Your task to perform on an android device: turn off sleep mode Image 0: 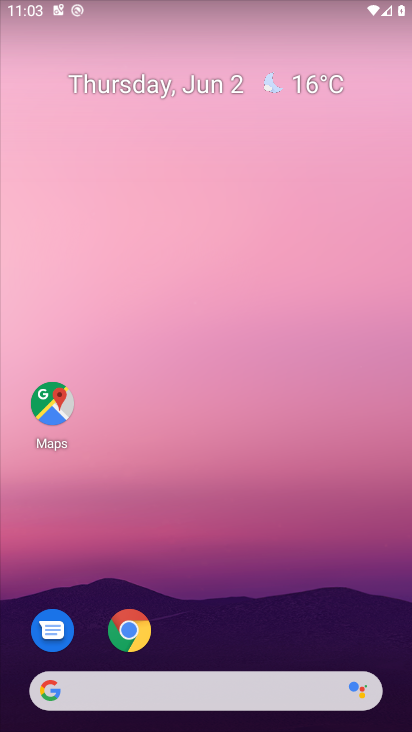
Step 0: drag from (206, 642) to (258, 36)
Your task to perform on an android device: turn off sleep mode Image 1: 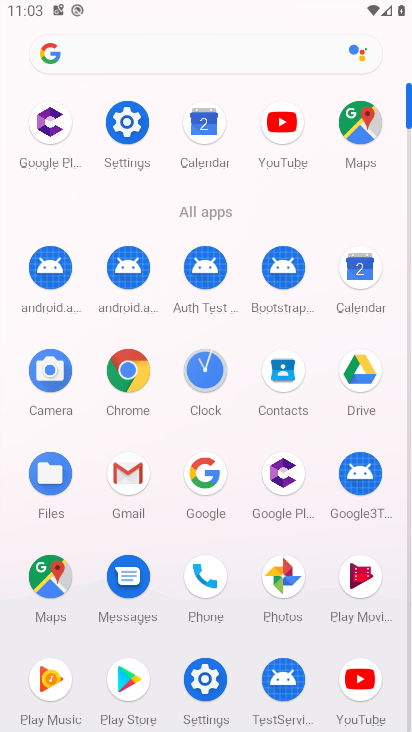
Step 1: click (195, 673)
Your task to perform on an android device: turn off sleep mode Image 2: 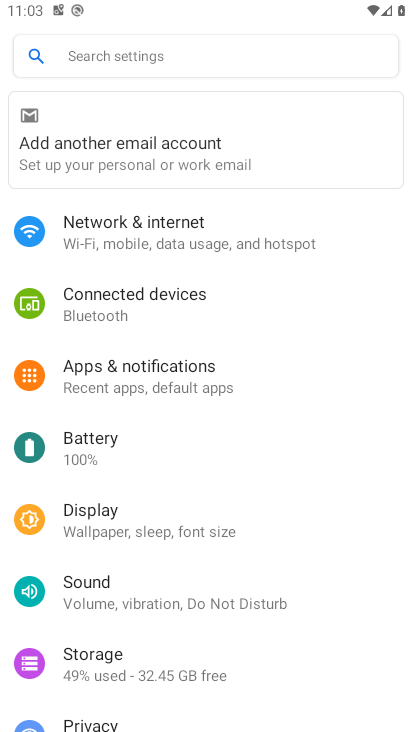
Step 2: click (222, 61)
Your task to perform on an android device: turn off sleep mode Image 3: 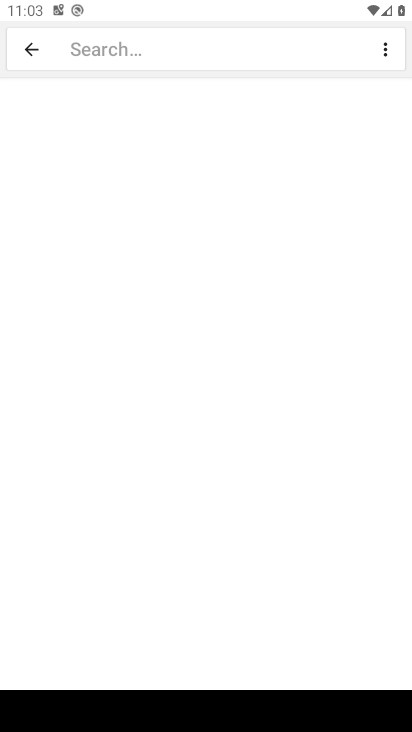
Step 3: type "sleep mode"
Your task to perform on an android device: turn off sleep mode Image 4: 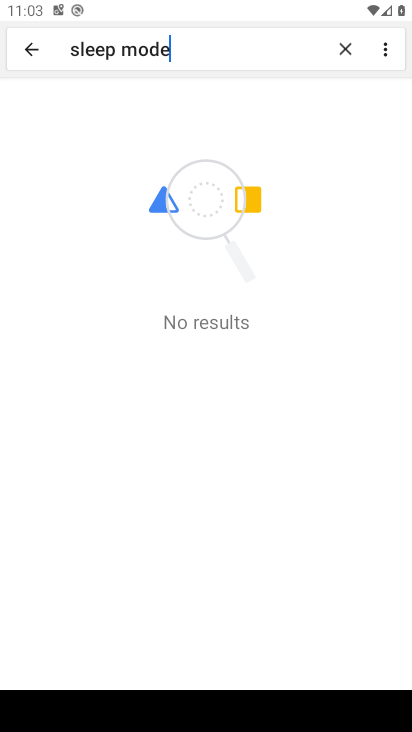
Step 4: task complete